Your task to perform on an android device: Open Chrome and go to the settings page Image 0: 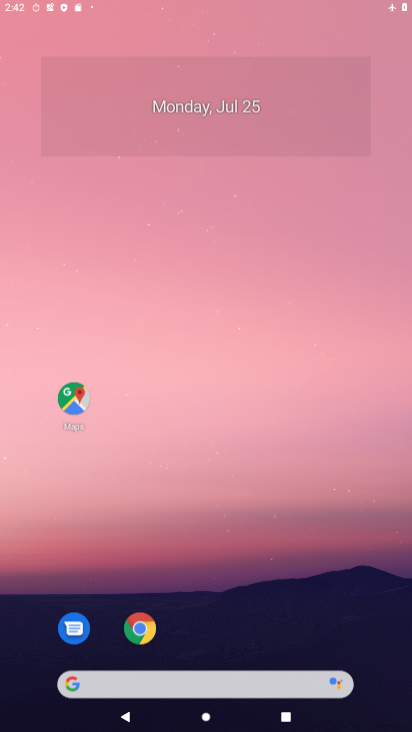
Step 0: drag from (399, 95) to (381, 1)
Your task to perform on an android device: Open Chrome and go to the settings page Image 1: 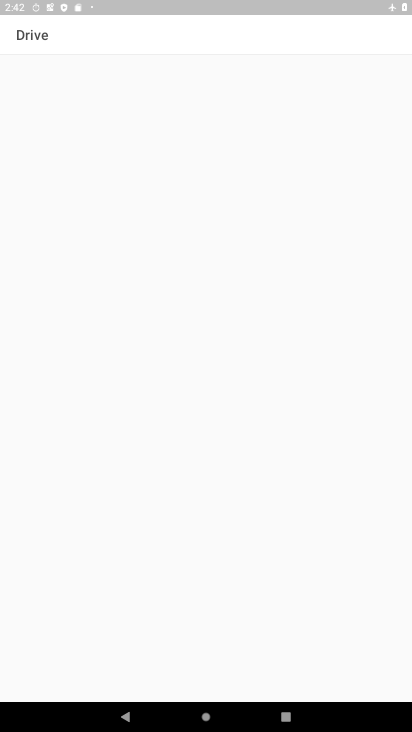
Step 1: press home button
Your task to perform on an android device: Open Chrome and go to the settings page Image 2: 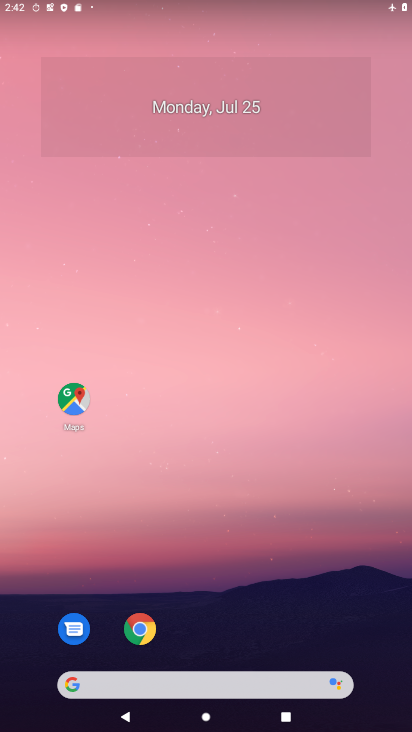
Step 2: drag from (41, 658) to (234, 235)
Your task to perform on an android device: Open Chrome and go to the settings page Image 3: 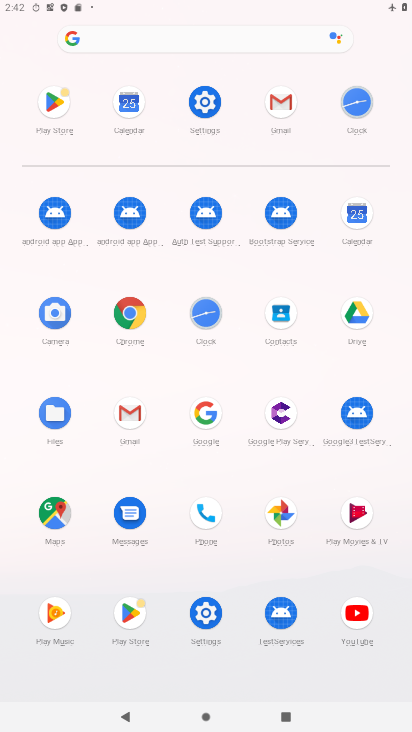
Step 3: click (139, 320)
Your task to perform on an android device: Open Chrome and go to the settings page Image 4: 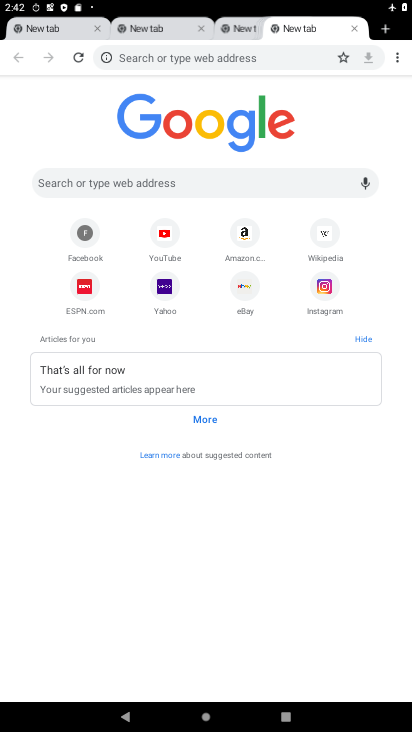
Step 4: click (395, 55)
Your task to perform on an android device: Open Chrome and go to the settings page Image 5: 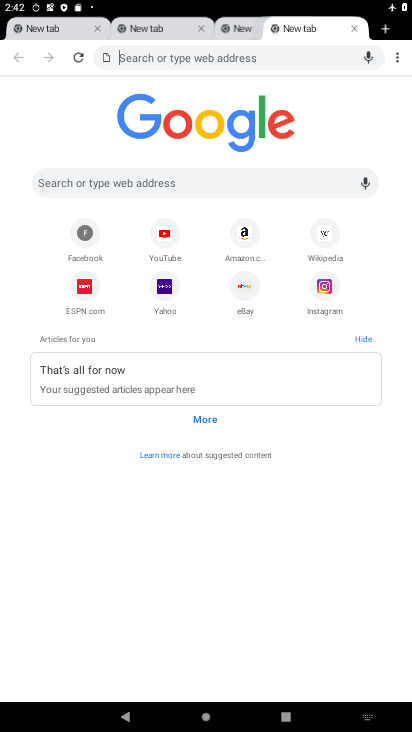
Step 5: click (402, 57)
Your task to perform on an android device: Open Chrome and go to the settings page Image 6: 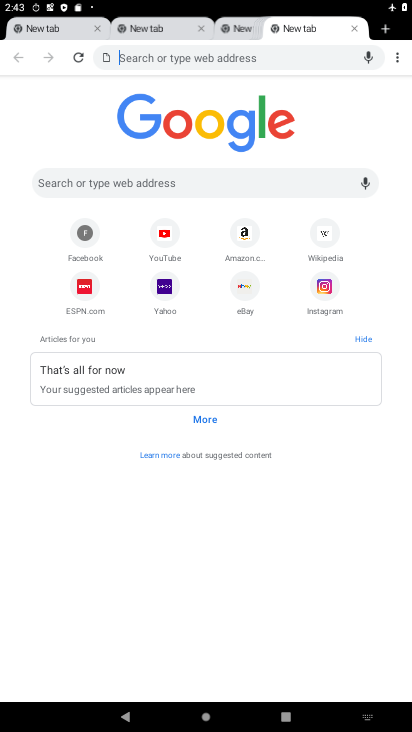
Step 6: click (393, 58)
Your task to perform on an android device: Open Chrome and go to the settings page Image 7: 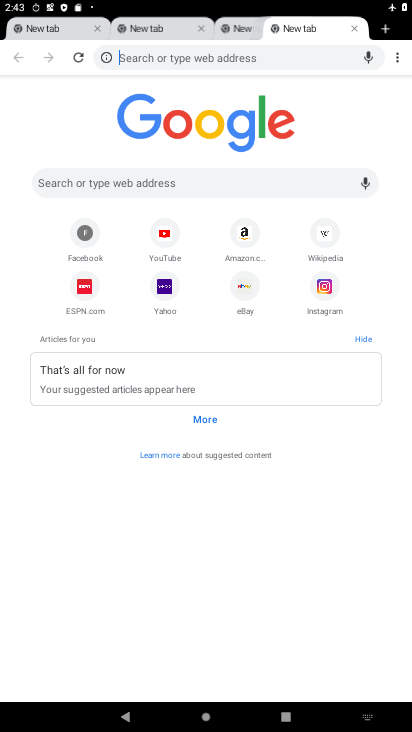
Step 7: click (400, 61)
Your task to perform on an android device: Open Chrome and go to the settings page Image 8: 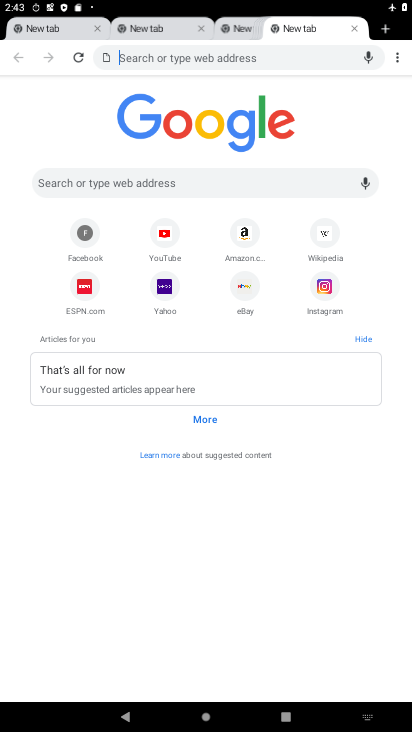
Step 8: task complete